Your task to perform on an android device: check google app version Image 0: 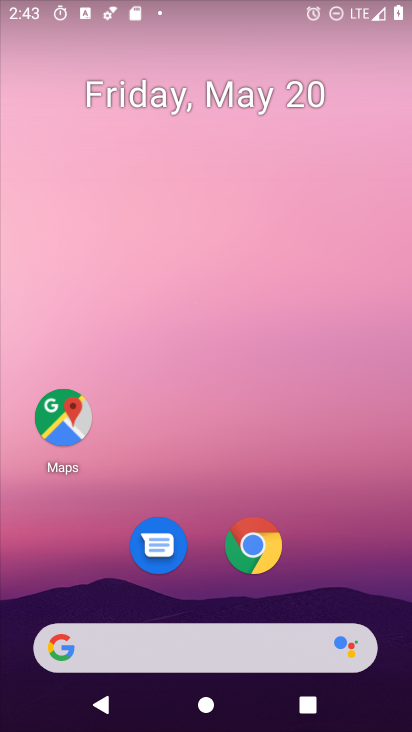
Step 0: drag from (260, 638) to (263, 0)
Your task to perform on an android device: check google app version Image 1: 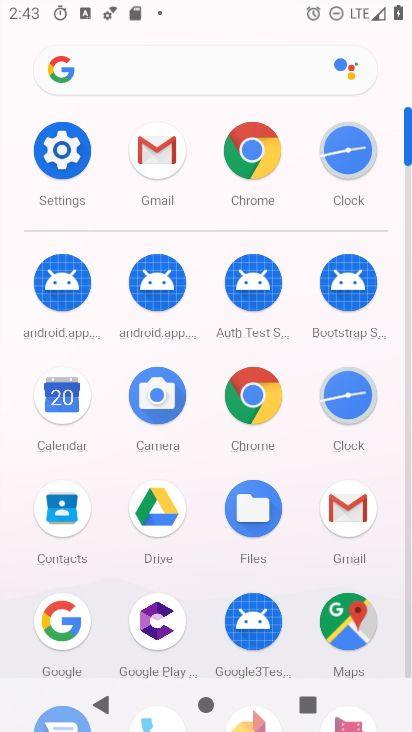
Step 1: drag from (298, 635) to (296, 162)
Your task to perform on an android device: check google app version Image 2: 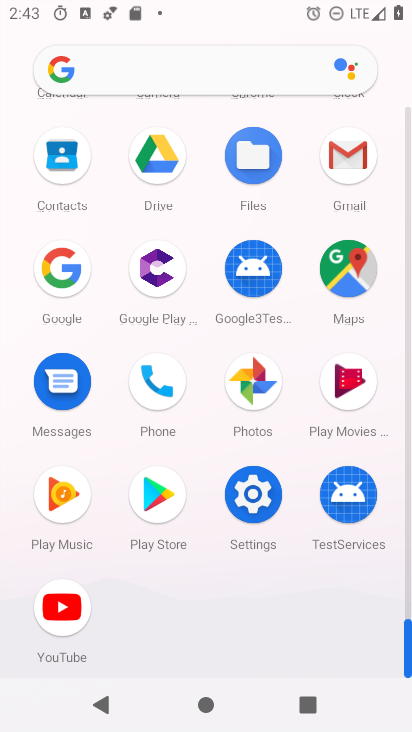
Step 2: drag from (283, 204) to (319, 620)
Your task to perform on an android device: check google app version Image 3: 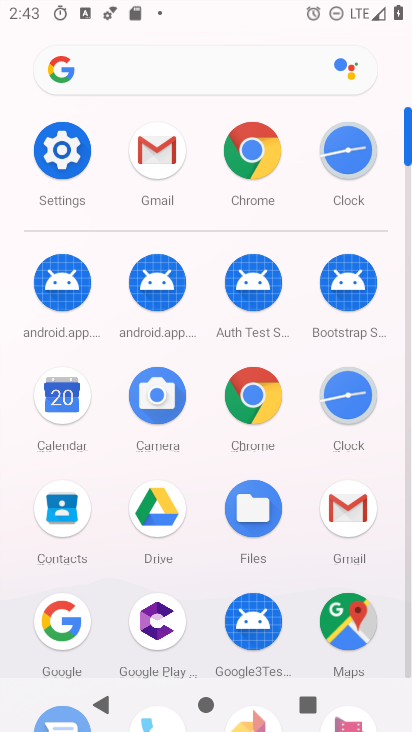
Step 3: click (259, 403)
Your task to perform on an android device: check google app version Image 4: 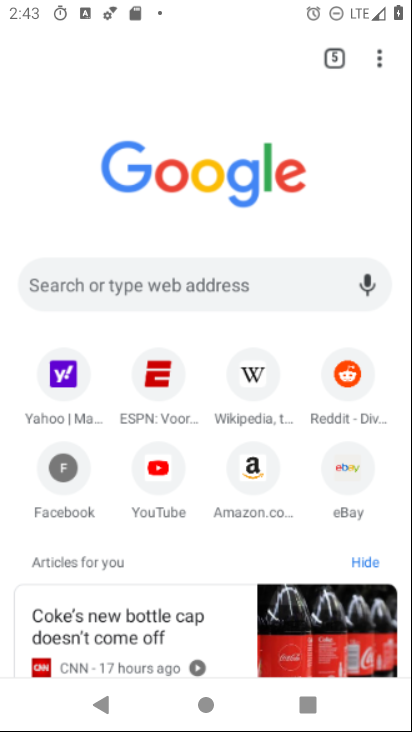
Step 4: click (381, 53)
Your task to perform on an android device: check google app version Image 5: 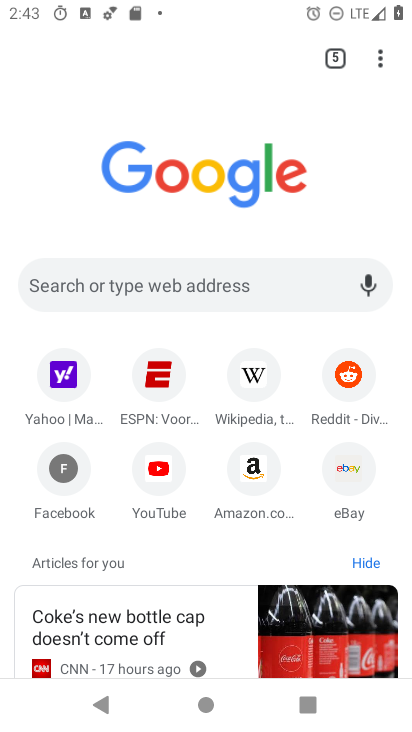
Step 5: click (373, 53)
Your task to perform on an android device: check google app version Image 6: 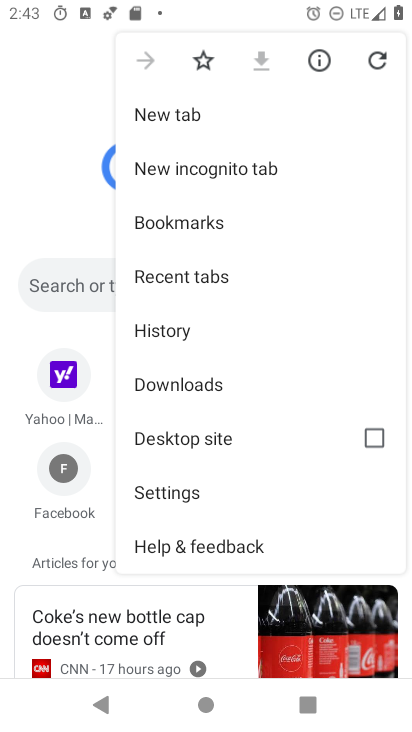
Step 6: click (196, 547)
Your task to perform on an android device: check google app version Image 7: 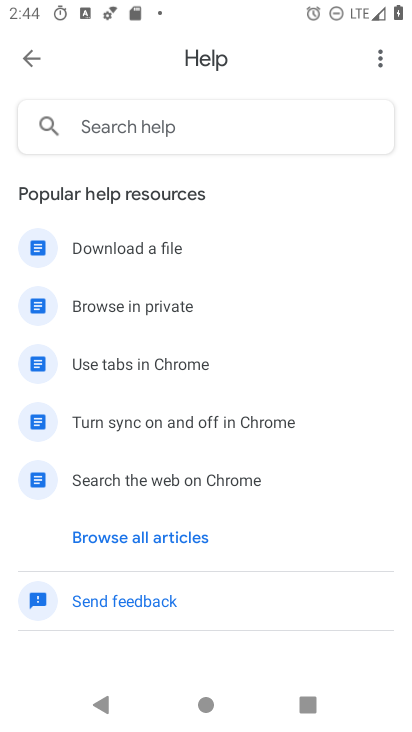
Step 7: click (377, 55)
Your task to perform on an android device: check google app version Image 8: 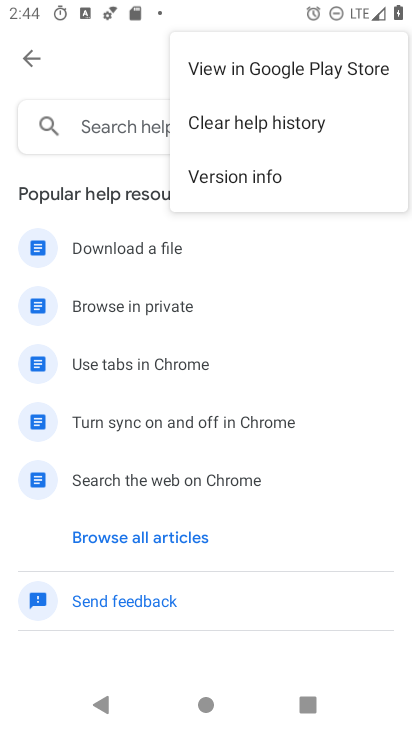
Step 8: click (251, 174)
Your task to perform on an android device: check google app version Image 9: 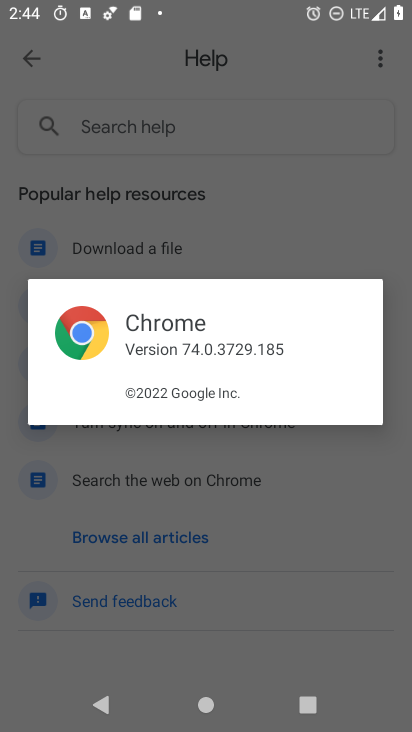
Step 9: task complete